Your task to perform on an android device: Open Android settings Image 0: 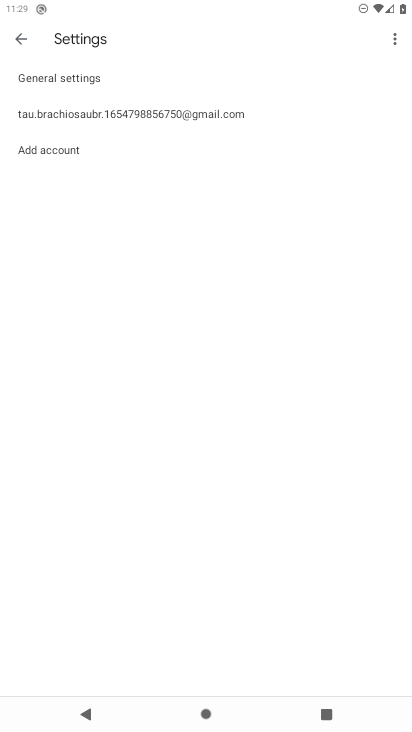
Step 0: drag from (177, 543) to (198, 235)
Your task to perform on an android device: Open Android settings Image 1: 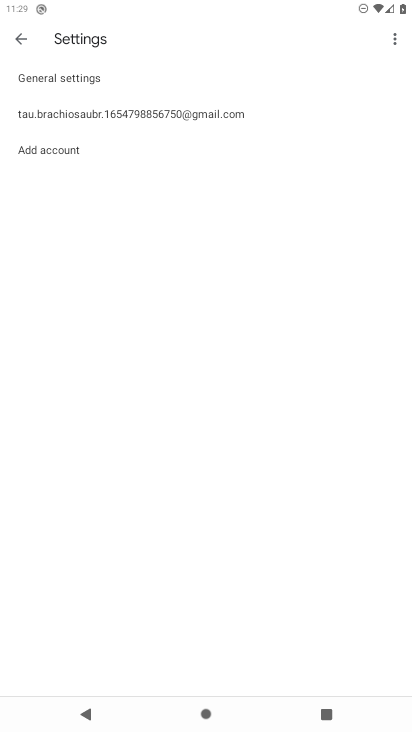
Step 1: drag from (257, 428) to (274, 167)
Your task to perform on an android device: Open Android settings Image 2: 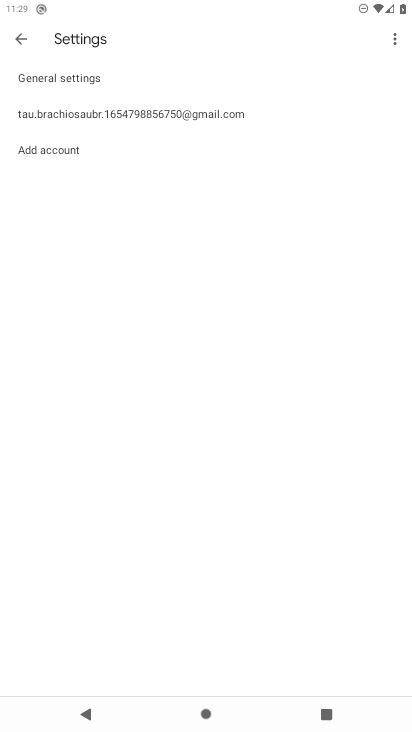
Step 2: click (67, 103)
Your task to perform on an android device: Open Android settings Image 3: 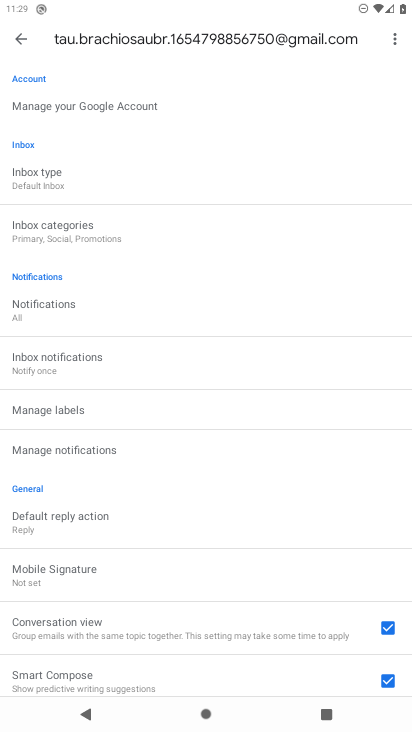
Step 3: press home button
Your task to perform on an android device: Open Android settings Image 4: 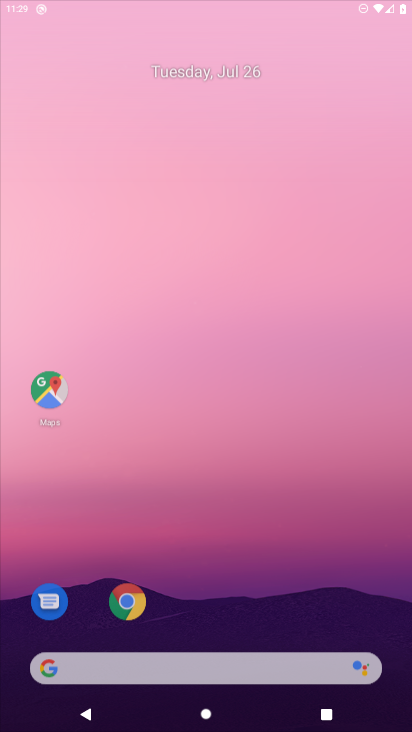
Step 4: drag from (206, 592) to (34, 102)
Your task to perform on an android device: Open Android settings Image 5: 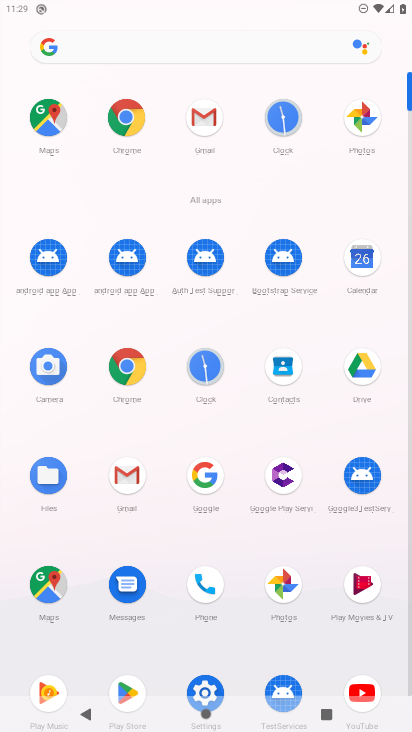
Step 5: click (207, 678)
Your task to perform on an android device: Open Android settings Image 6: 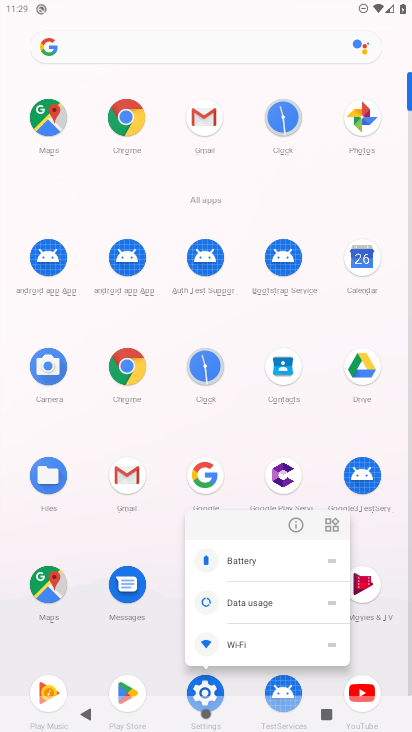
Step 6: click (297, 524)
Your task to perform on an android device: Open Android settings Image 7: 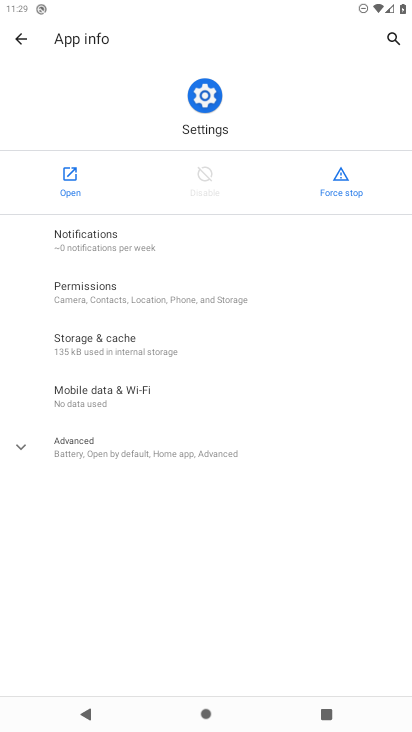
Step 7: click (73, 187)
Your task to perform on an android device: Open Android settings Image 8: 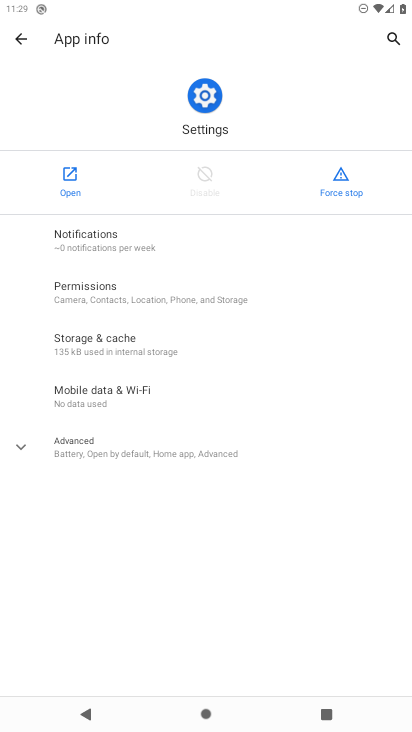
Step 8: click (73, 187)
Your task to perform on an android device: Open Android settings Image 9: 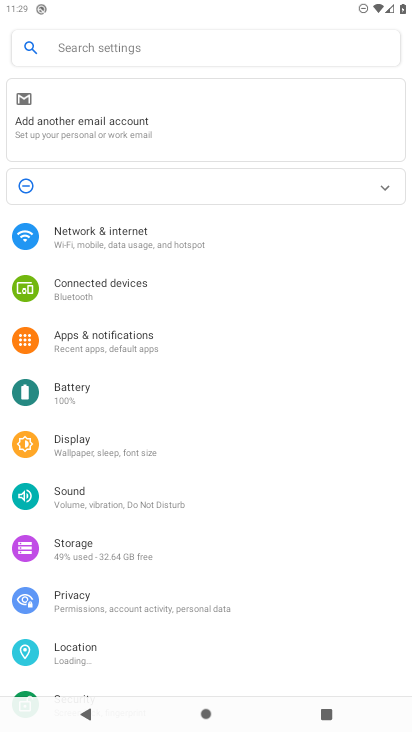
Step 9: drag from (241, 132) to (251, 41)
Your task to perform on an android device: Open Android settings Image 10: 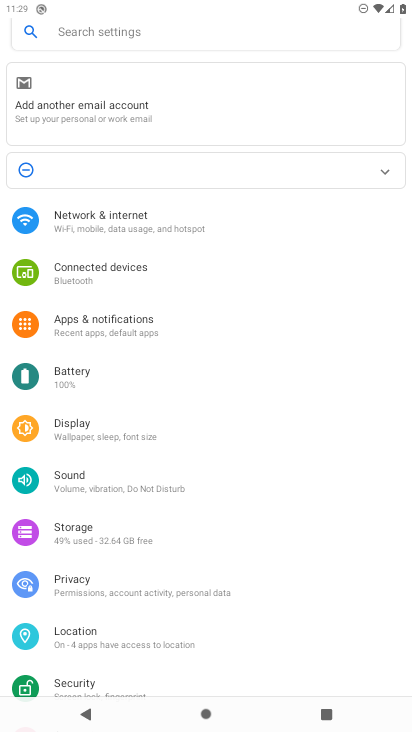
Step 10: drag from (144, 637) to (161, 192)
Your task to perform on an android device: Open Android settings Image 11: 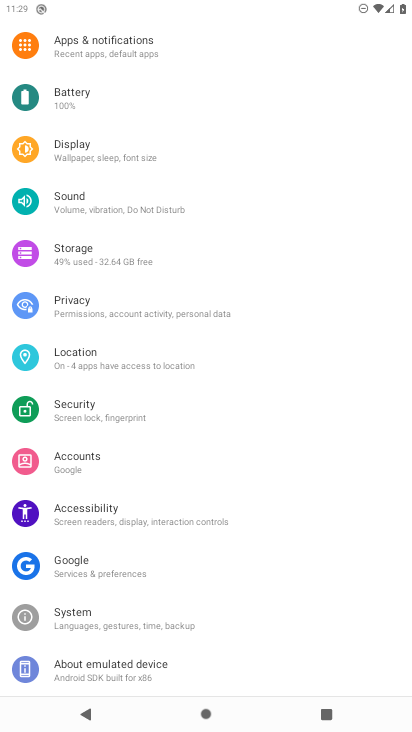
Step 11: click (108, 669)
Your task to perform on an android device: Open Android settings Image 12: 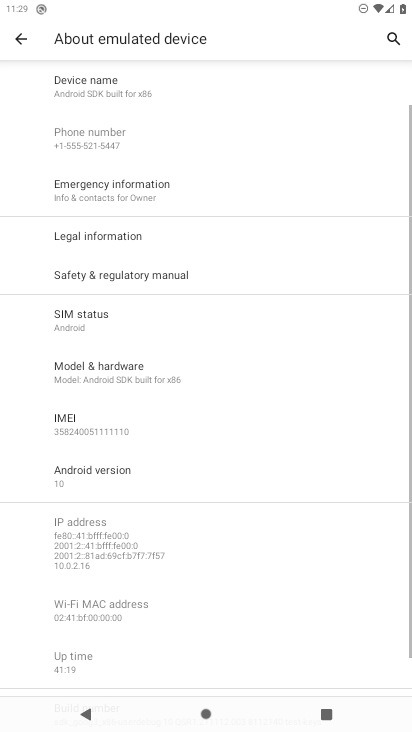
Step 12: click (144, 475)
Your task to perform on an android device: Open Android settings Image 13: 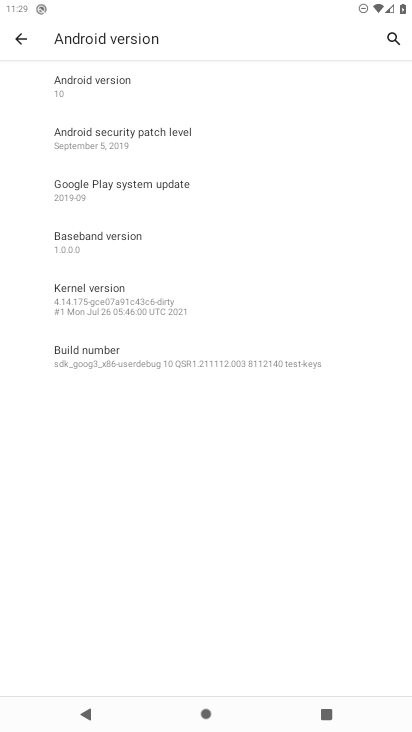
Step 13: drag from (148, 455) to (173, 126)
Your task to perform on an android device: Open Android settings Image 14: 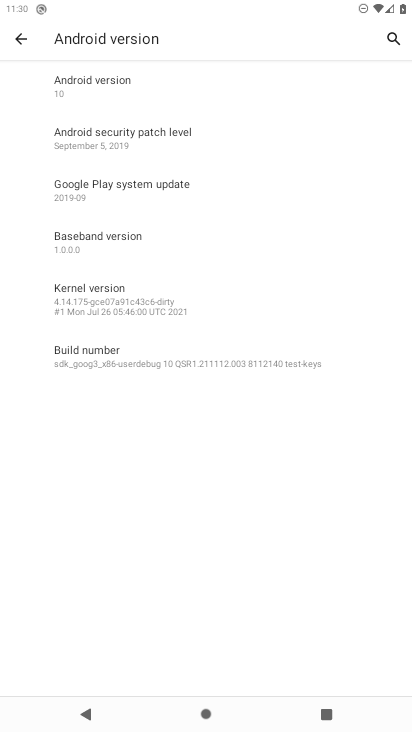
Step 14: click (102, 84)
Your task to perform on an android device: Open Android settings Image 15: 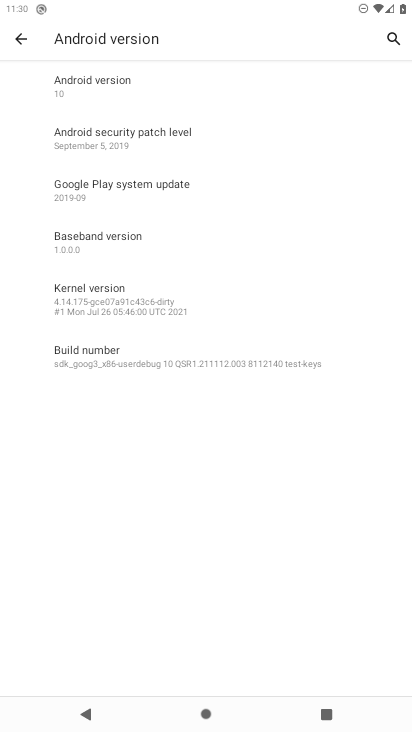
Step 15: task complete